Your task to perform on an android device: find photos in the google photos app Image 0: 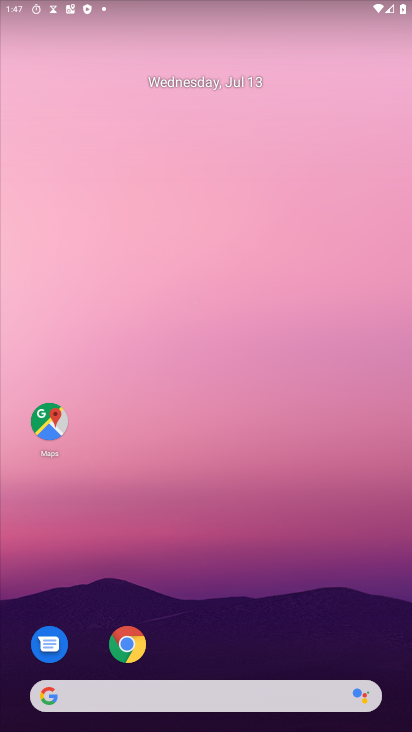
Step 0: press home button
Your task to perform on an android device: find photos in the google photos app Image 1: 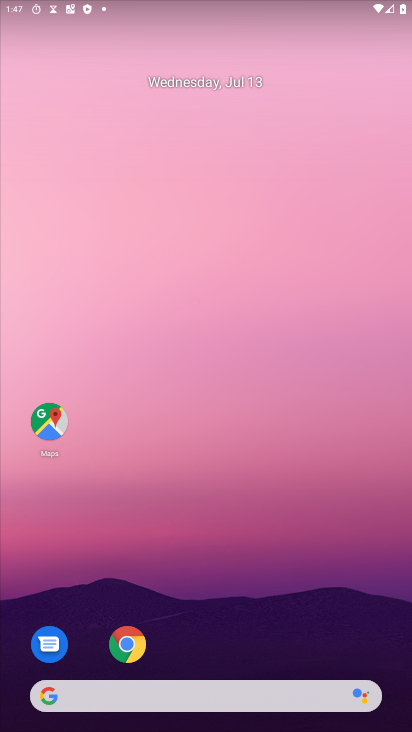
Step 1: drag from (237, 648) to (193, 20)
Your task to perform on an android device: find photos in the google photos app Image 2: 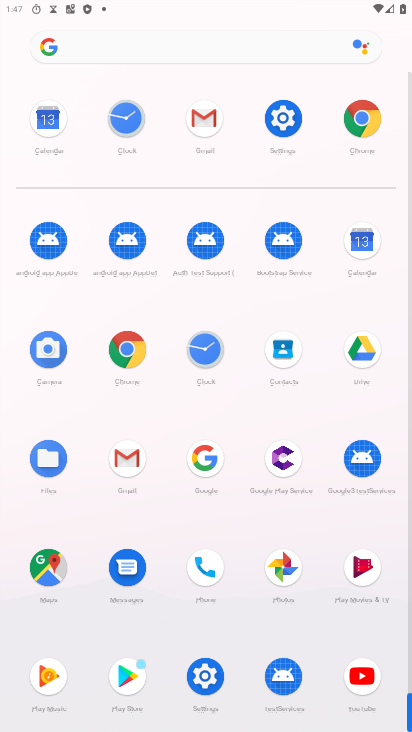
Step 2: click (285, 586)
Your task to perform on an android device: find photos in the google photos app Image 3: 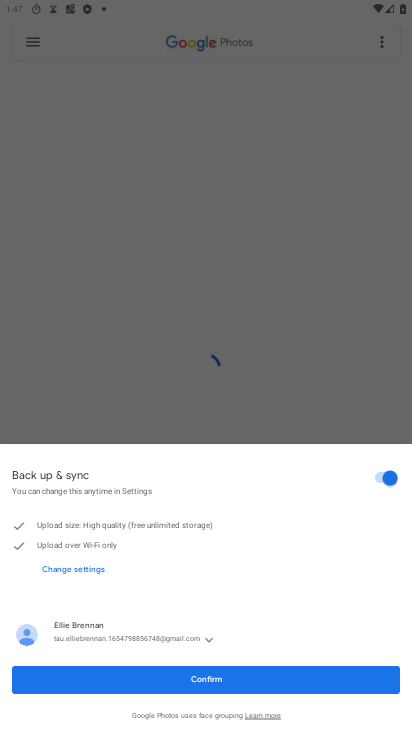
Step 3: click (233, 686)
Your task to perform on an android device: find photos in the google photos app Image 4: 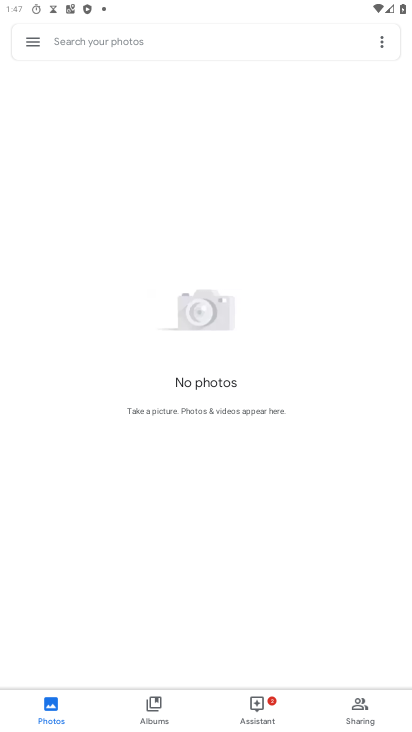
Step 4: task complete